Your task to perform on an android device: change notification settings in the gmail app Image 0: 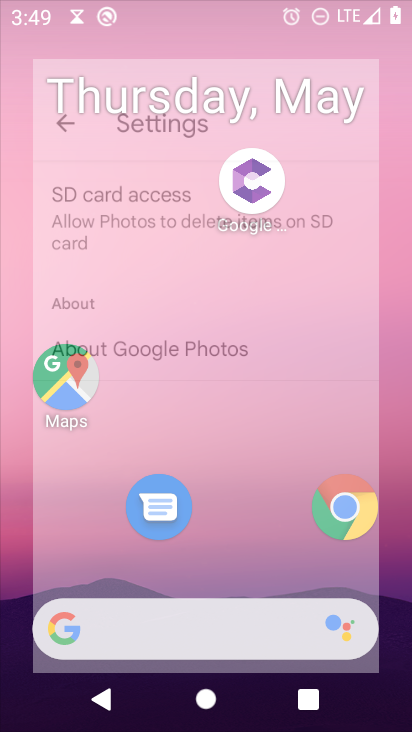
Step 0: press home button
Your task to perform on an android device: change notification settings in the gmail app Image 1: 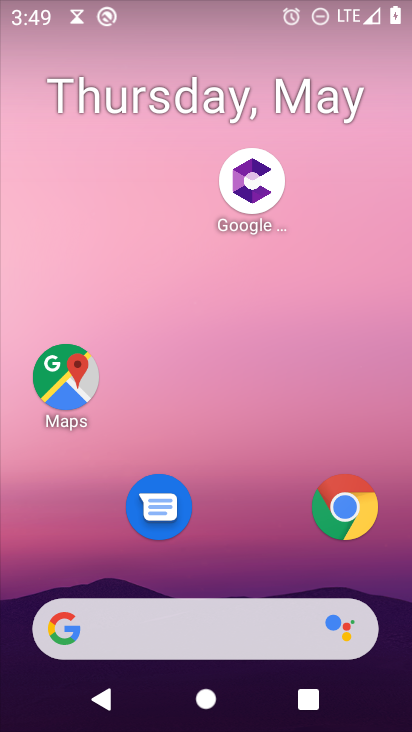
Step 1: drag from (247, 584) to (218, 241)
Your task to perform on an android device: change notification settings in the gmail app Image 2: 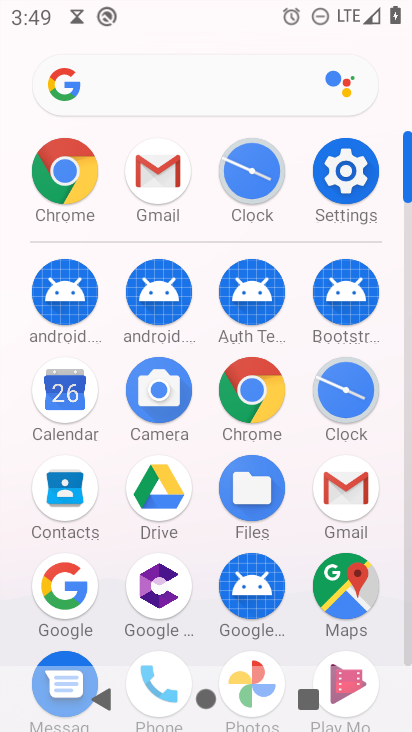
Step 2: click (158, 183)
Your task to perform on an android device: change notification settings in the gmail app Image 3: 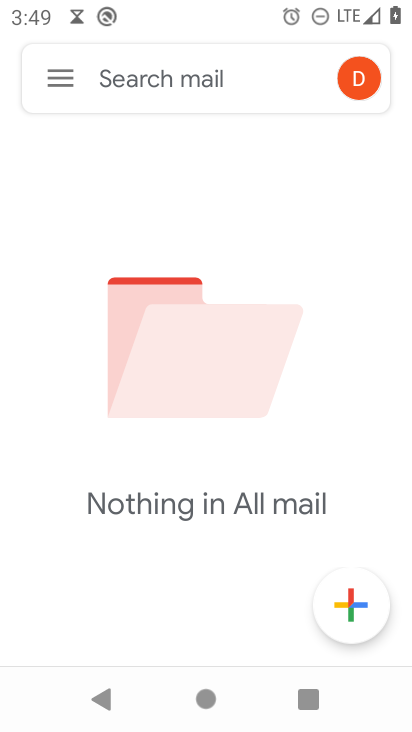
Step 3: click (69, 71)
Your task to perform on an android device: change notification settings in the gmail app Image 4: 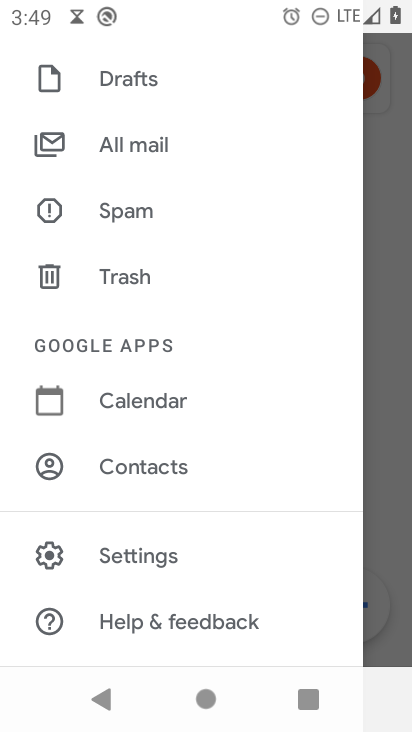
Step 4: click (148, 555)
Your task to perform on an android device: change notification settings in the gmail app Image 5: 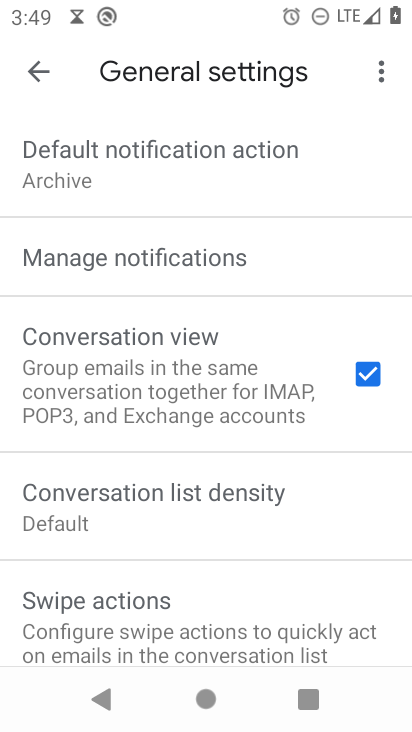
Step 5: click (138, 260)
Your task to perform on an android device: change notification settings in the gmail app Image 6: 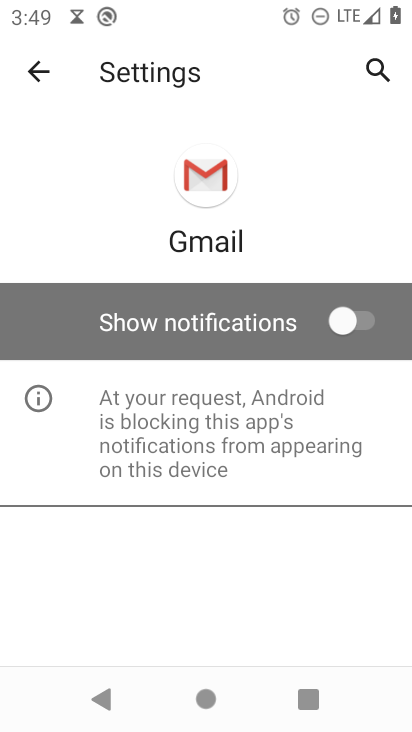
Step 6: click (365, 316)
Your task to perform on an android device: change notification settings in the gmail app Image 7: 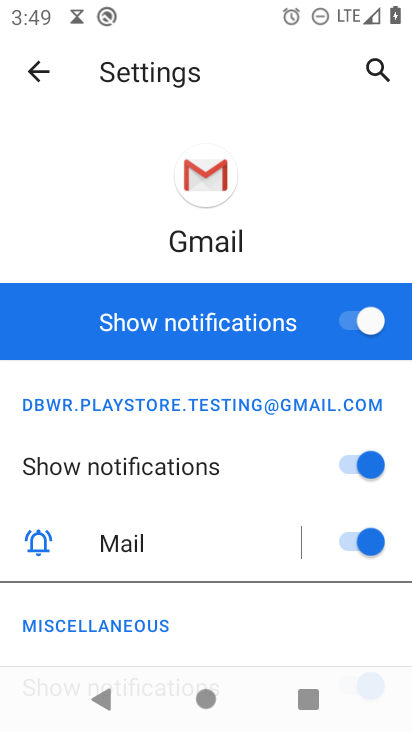
Step 7: task complete